Your task to perform on an android device: turn off location history Image 0: 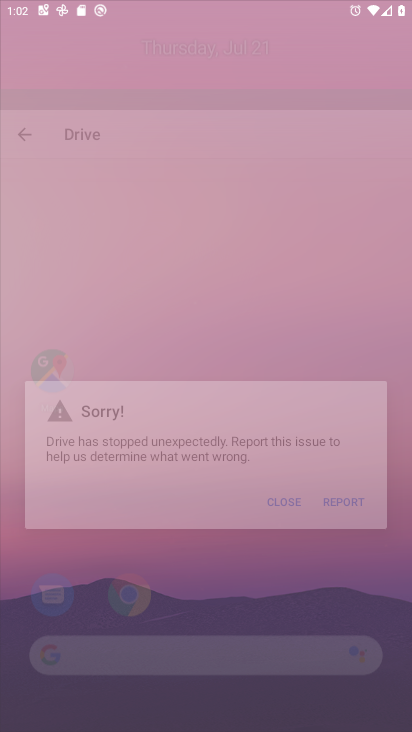
Step 0: drag from (370, 35) to (327, 11)
Your task to perform on an android device: turn off location history Image 1: 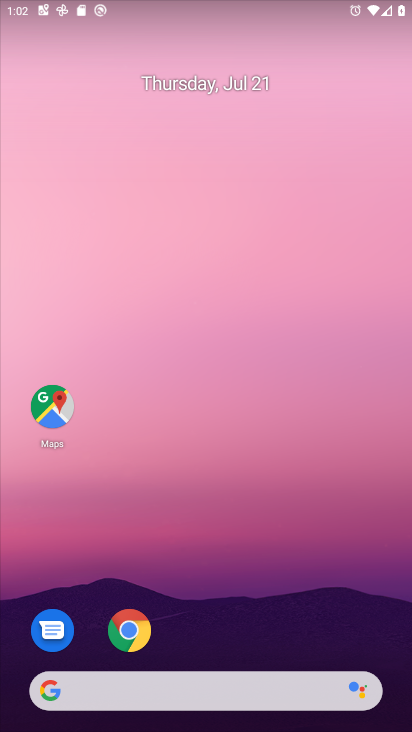
Step 1: drag from (209, 505) to (293, 0)
Your task to perform on an android device: turn off location history Image 2: 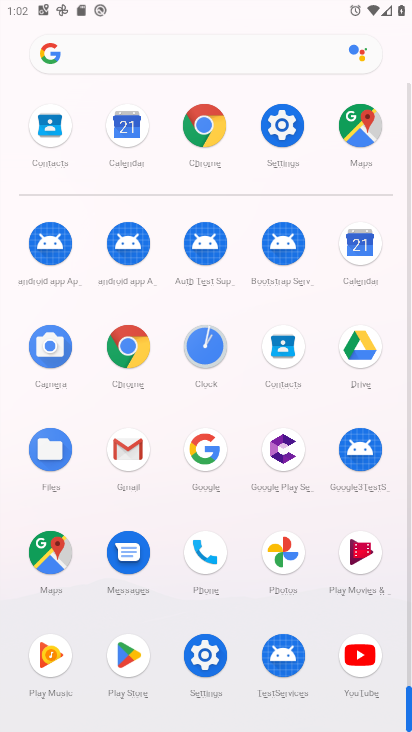
Step 2: click (198, 655)
Your task to perform on an android device: turn off location history Image 3: 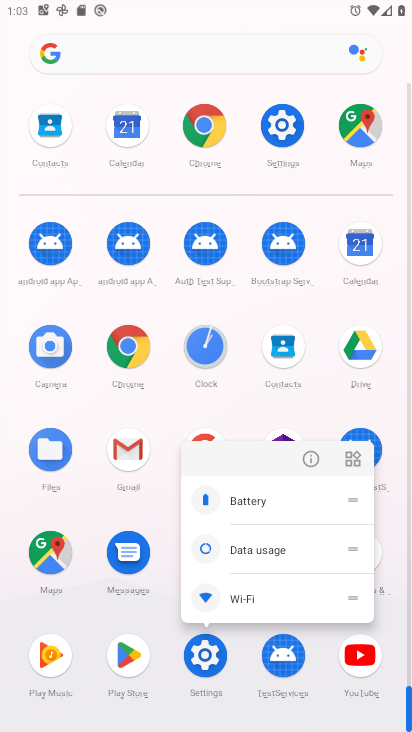
Step 3: click (313, 451)
Your task to perform on an android device: turn off location history Image 4: 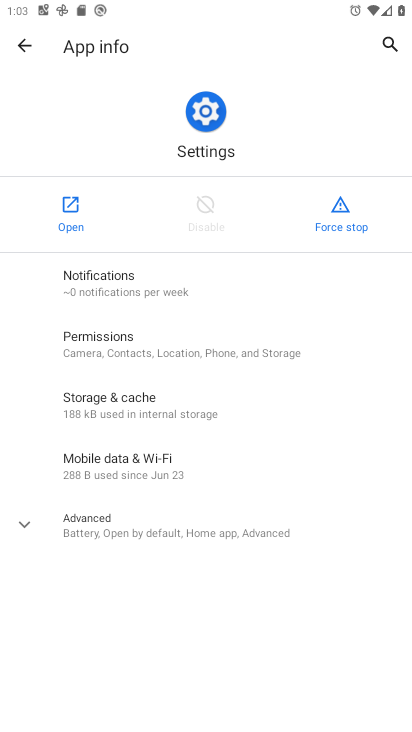
Step 4: click (83, 202)
Your task to perform on an android device: turn off location history Image 5: 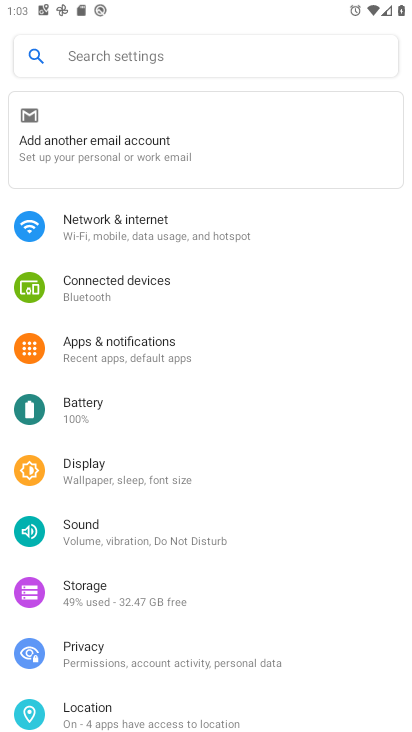
Step 5: drag from (164, 624) to (308, 168)
Your task to perform on an android device: turn off location history Image 6: 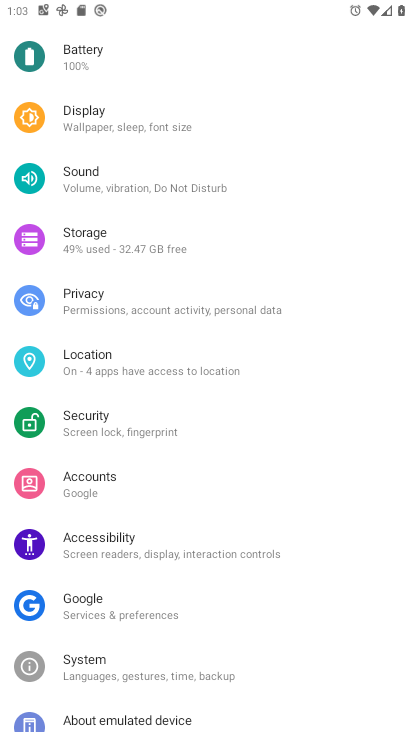
Step 6: click (125, 374)
Your task to perform on an android device: turn off location history Image 7: 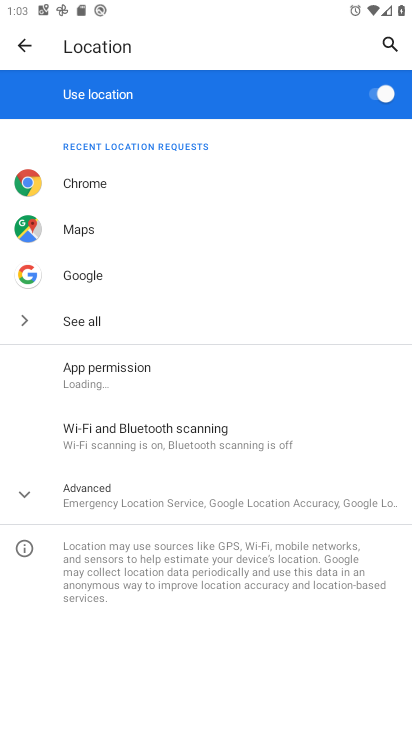
Step 7: click (151, 490)
Your task to perform on an android device: turn off location history Image 8: 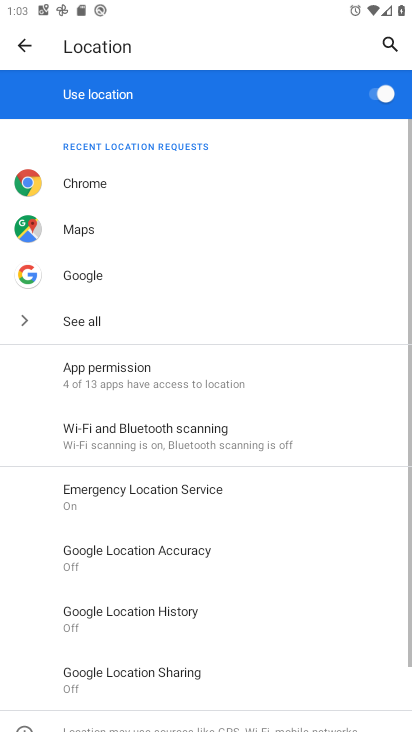
Step 8: click (180, 612)
Your task to perform on an android device: turn off location history Image 9: 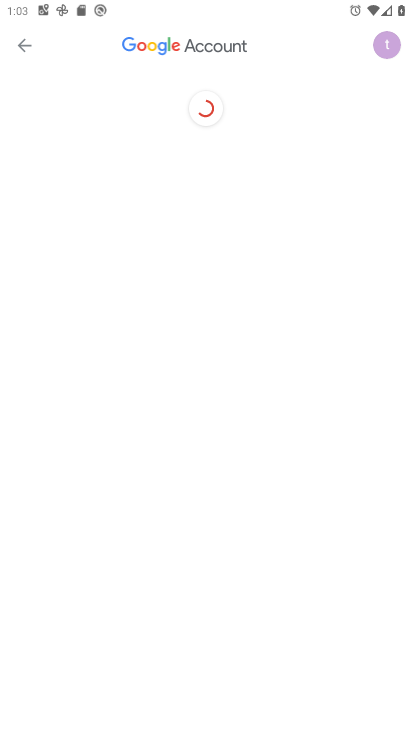
Step 9: drag from (230, 656) to (255, 308)
Your task to perform on an android device: turn off location history Image 10: 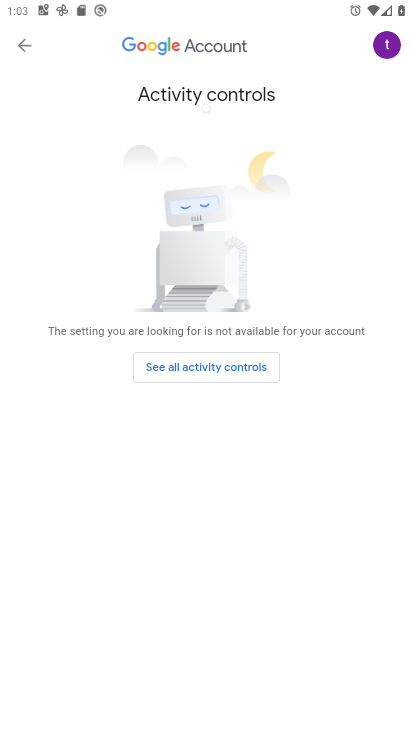
Step 10: click (210, 379)
Your task to perform on an android device: turn off location history Image 11: 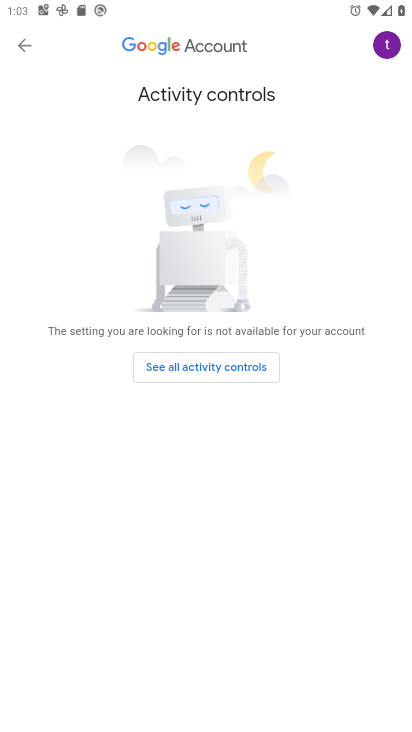
Step 11: click (215, 365)
Your task to perform on an android device: turn off location history Image 12: 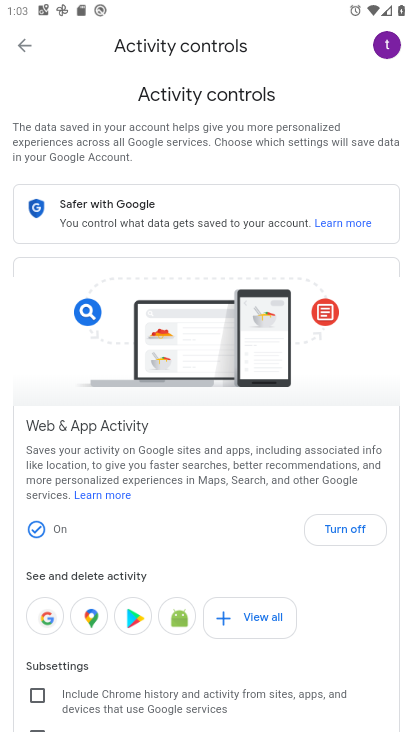
Step 12: click (341, 526)
Your task to perform on an android device: turn off location history Image 13: 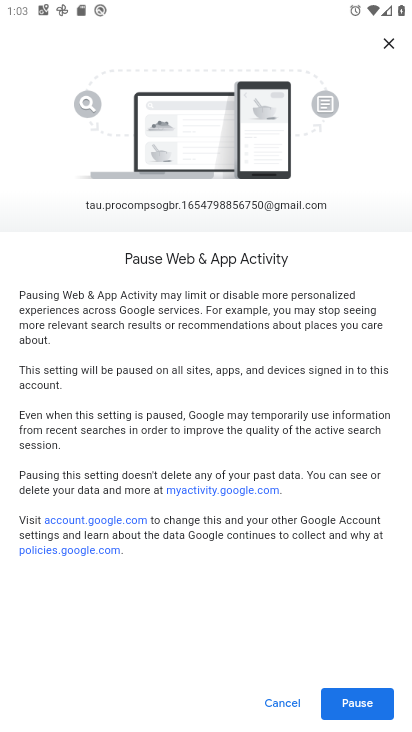
Step 13: drag from (226, 633) to (289, 282)
Your task to perform on an android device: turn off location history Image 14: 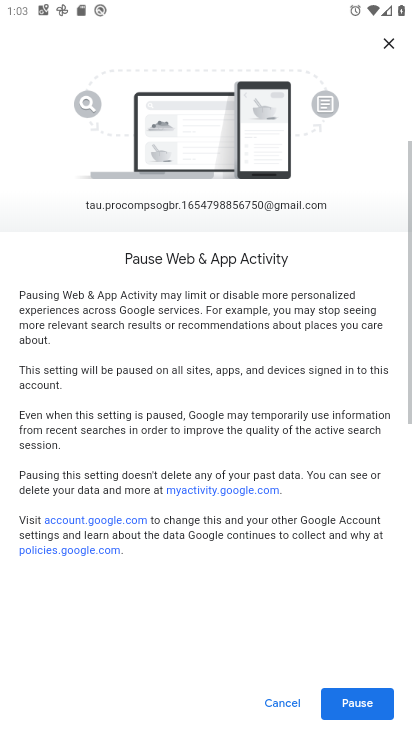
Step 14: click (350, 707)
Your task to perform on an android device: turn off location history Image 15: 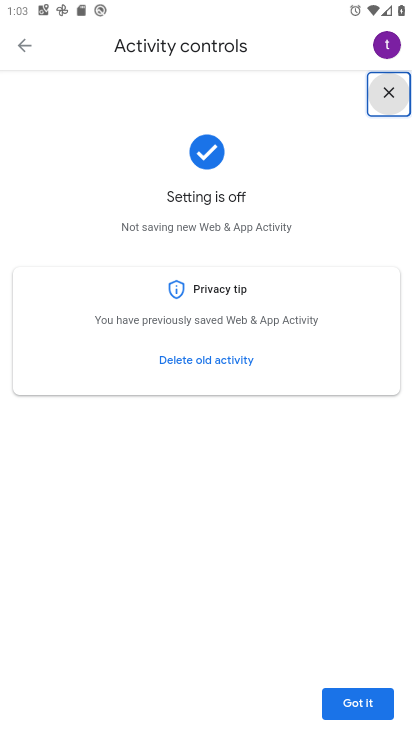
Step 15: click (355, 709)
Your task to perform on an android device: turn off location history Image 16: 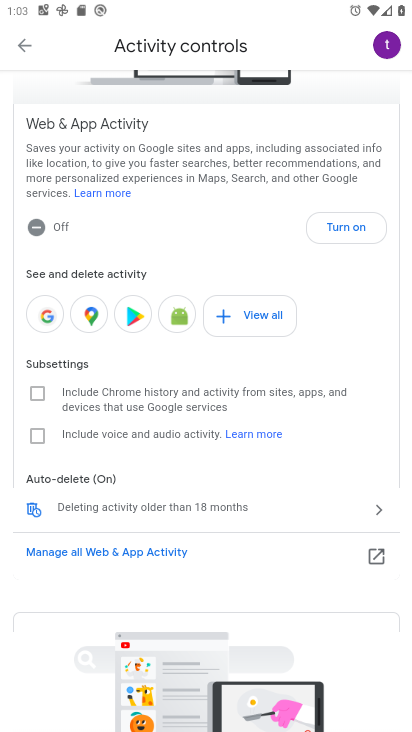
Step 16: task complete